Your task to perform on an android device: Open Google Chrome and click the shortcut for Amazon.com Image 0: 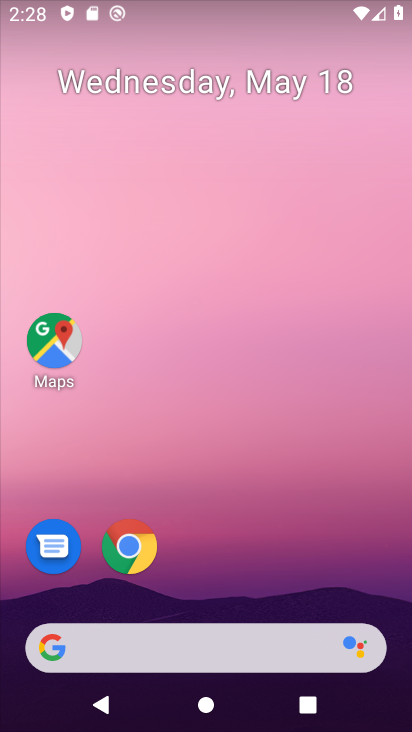
Step 0: click (129, 546)
Your task to perform on an android device: Open Google Chrome and click the shortcut for Amazon.com Image 1: 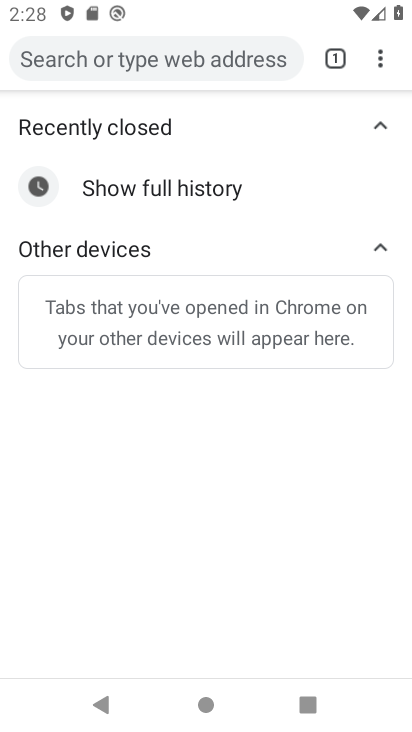
Step 1: click (381, 66)
Your task to perform on an android device: Open Google Chrome and click the shortcut for Amazon.com Image 2: 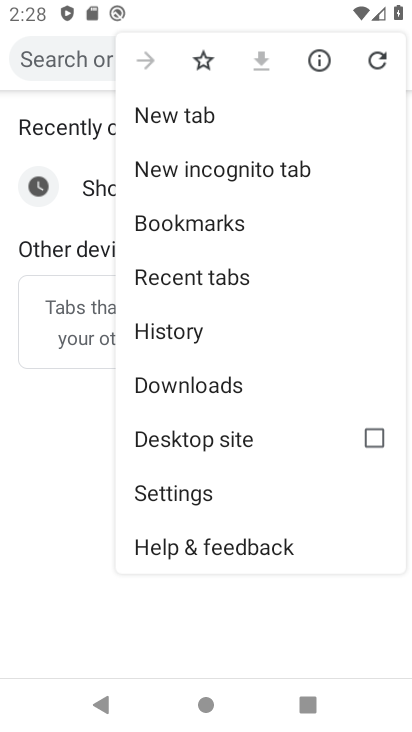
Step 2: click (153, 113)
Your task to perform on an android device: Open Google Chrome and click the shortcut for Amazon.com Image 3: 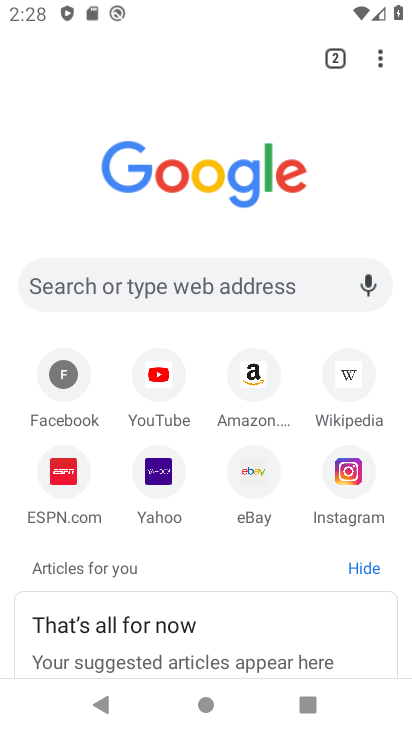
Step 3: click (256, 381)
Your task to perform on an android device: Open Google Chrome and click the shortcut for Amazon.com Image 4: 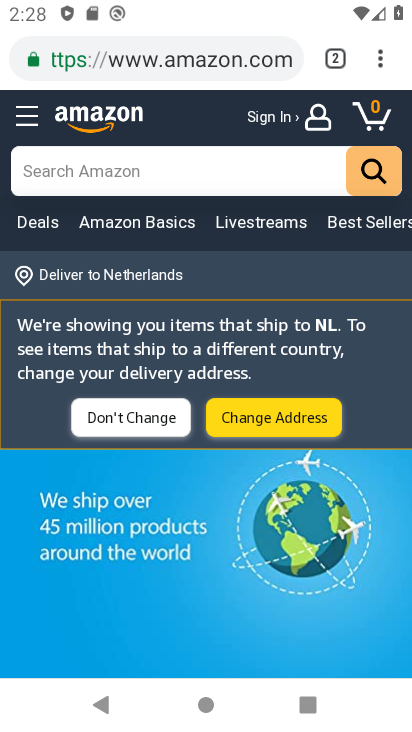
Step 4: task complete